Your task to perform on an android device: turn on data saver in the chrome app Image 0: 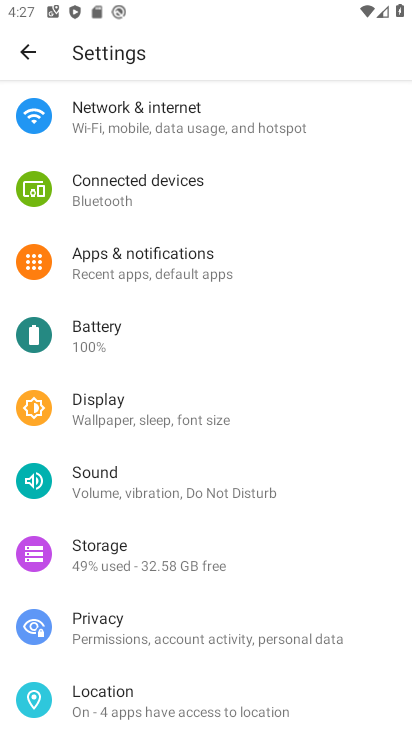
Step 0: press home button
Your task to perform on an android device: turn on data saver in the chrome app Image 1: 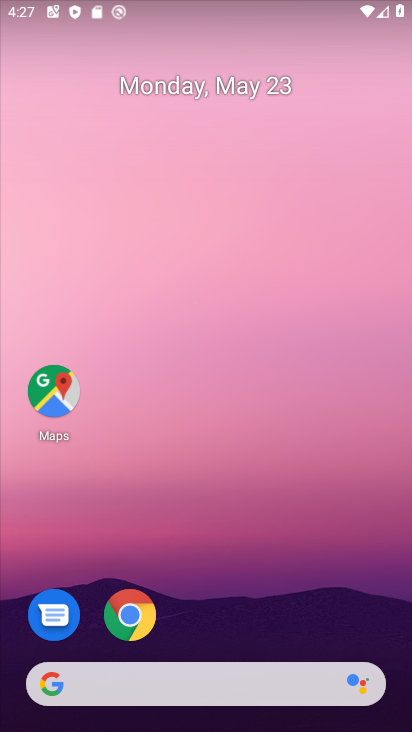
Step 1: click (128, 610)
Your task to perform on an android device: turn on data saver in the chrome app Image 2: 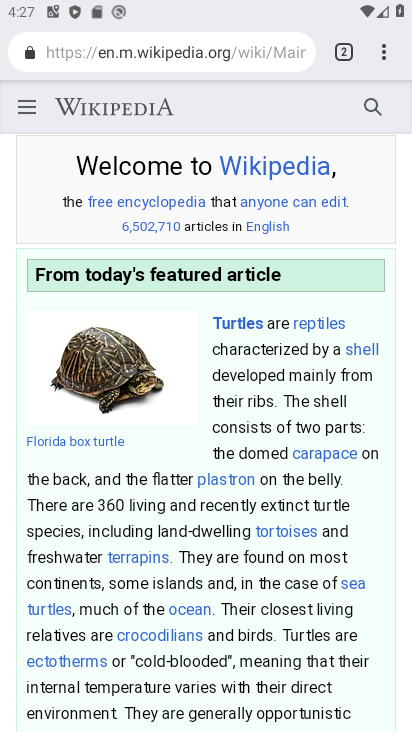
Step 2: click (377, 50)
Your task to perform on an android device: turn on data saver in the chrome app Image 3: 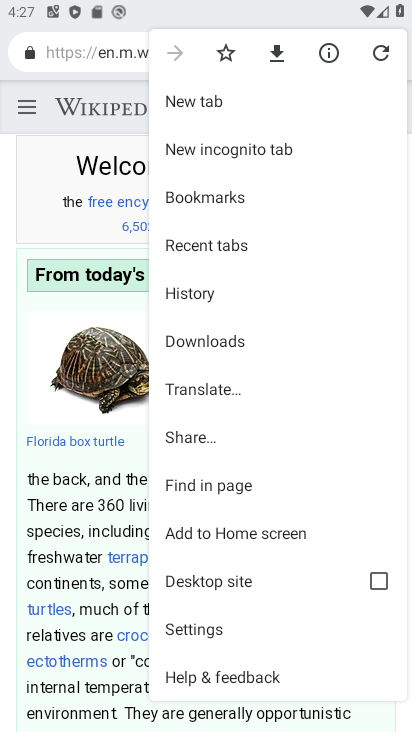
Step 3: click (215, 622)
Your task to perform on an android device: turn on data saver in the chrome app Image 4: 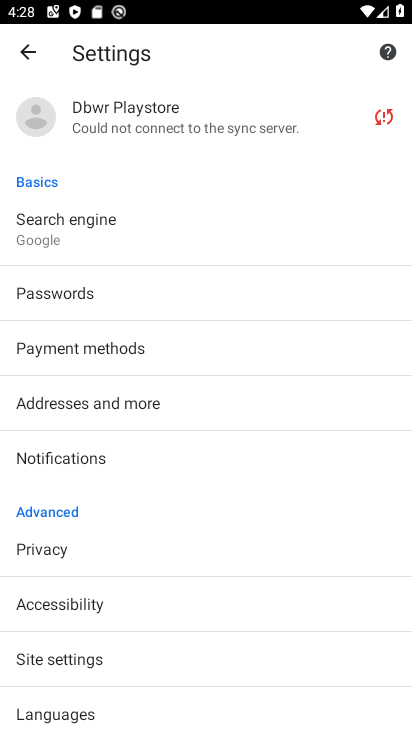
Step 4: drag from (154, 654) to (209, 398)
Your task to perform on an android device: turn on data saver in the chrome app Image 5: 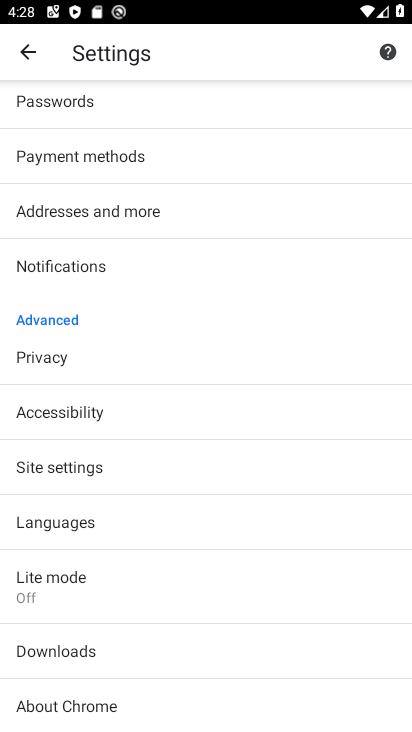
Step 5: click (167, 604)
Your task to perform on an android device: turn on data saver in the chrome app Image 6: 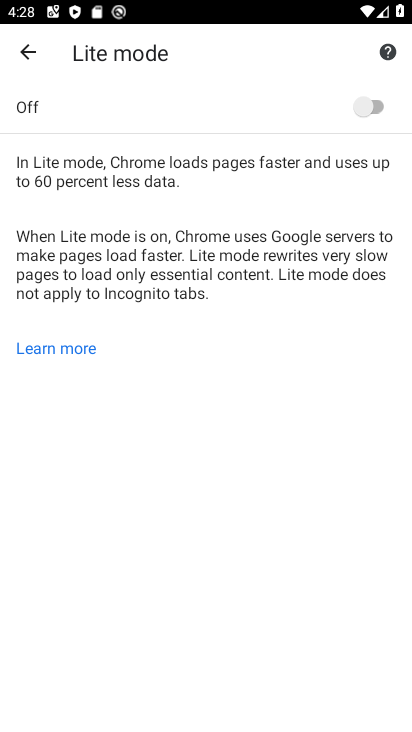
Step 6: click (370, 98)
Your task to perform on an android device: turn on data saver in the chrome app Image 7: 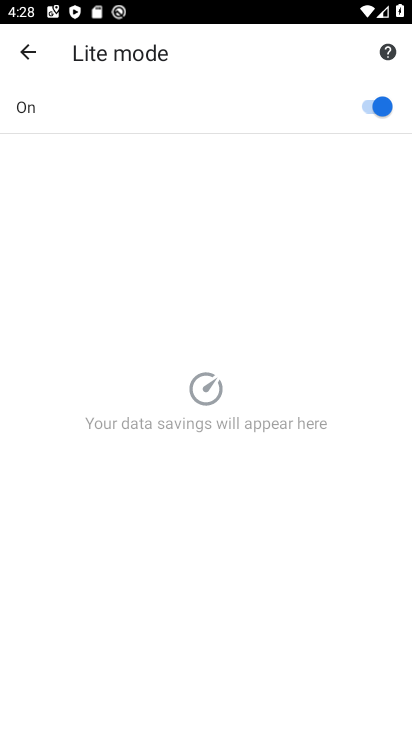
Step 7: task complete